Your task to perform on an android device: uninstall "Skype" Image 0: 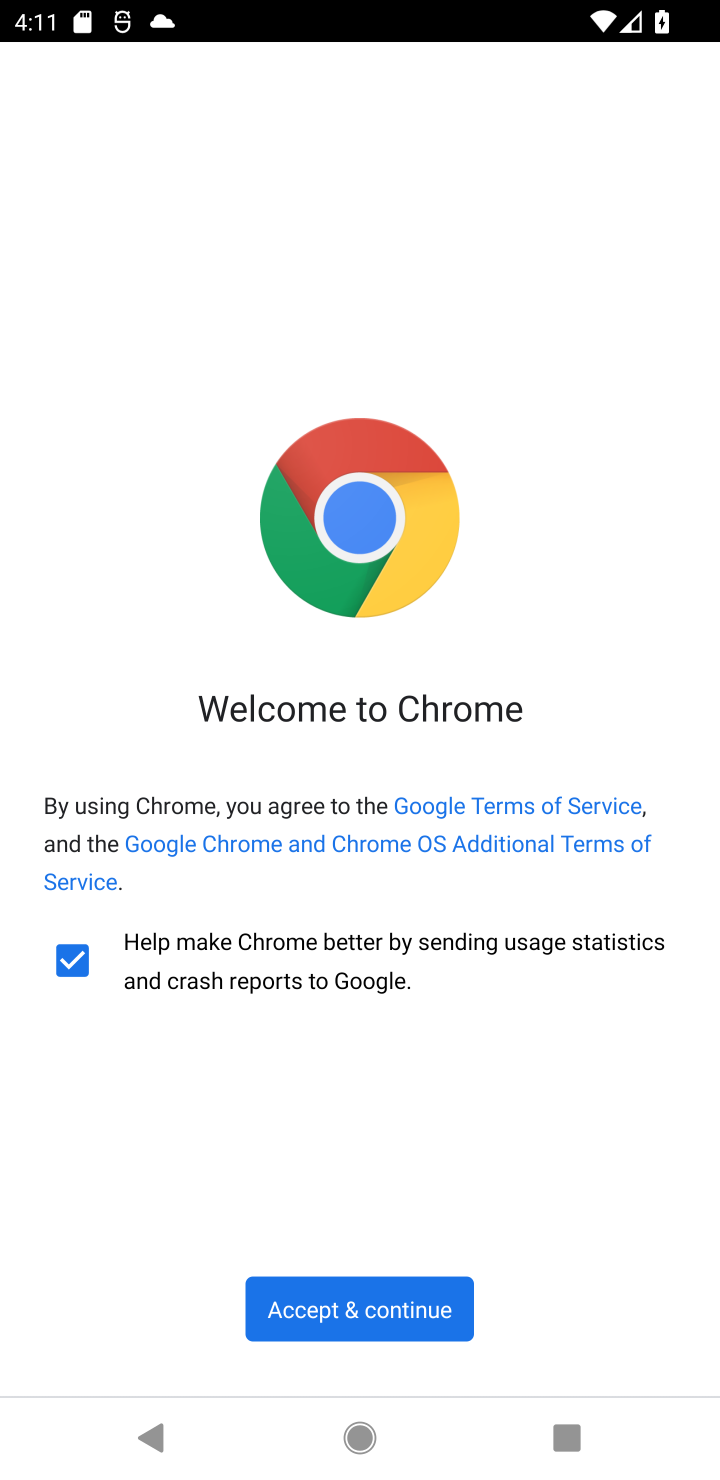
Step 0: press home button
Your task to perform on an android device: uninstall "Skype" Image 1: 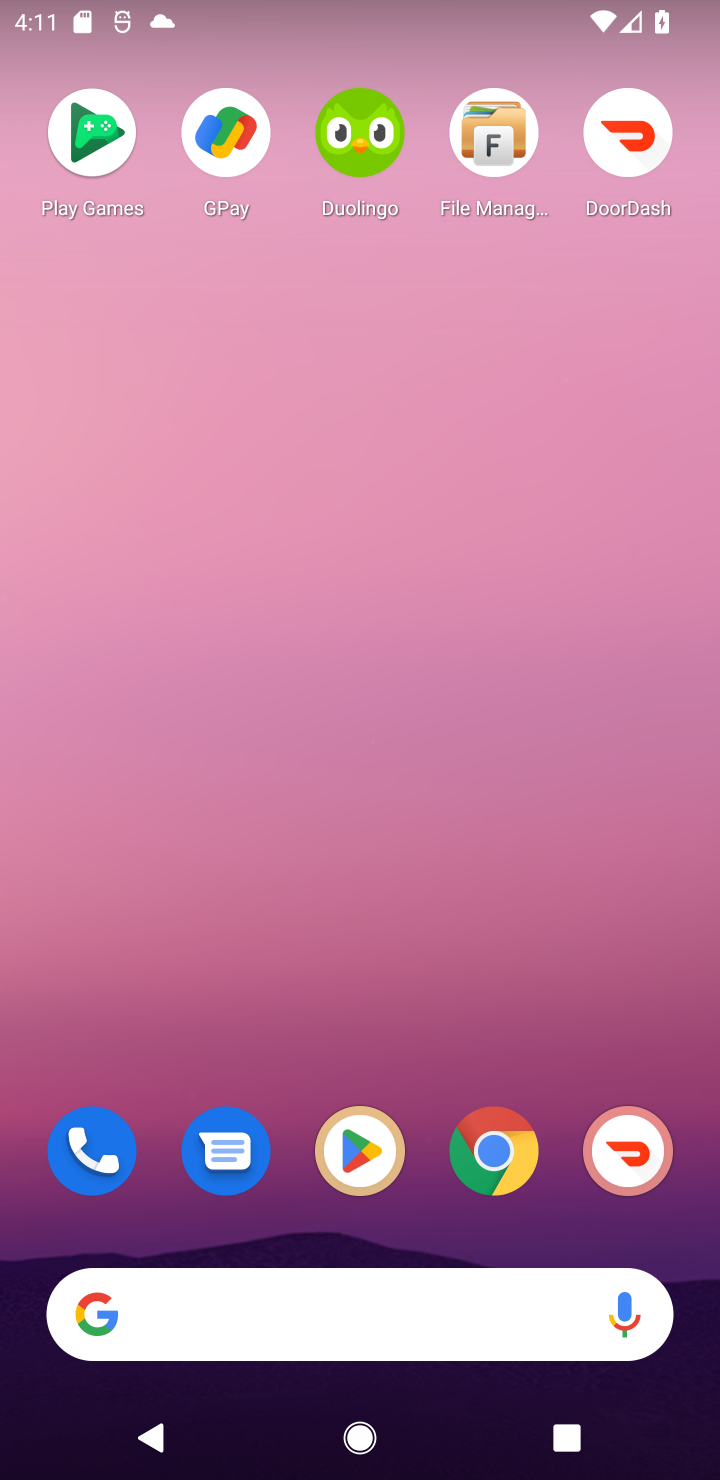
Step 1: click (352, 1196)
Your task to perform on an android device: uninstall "Skype" Image 2: 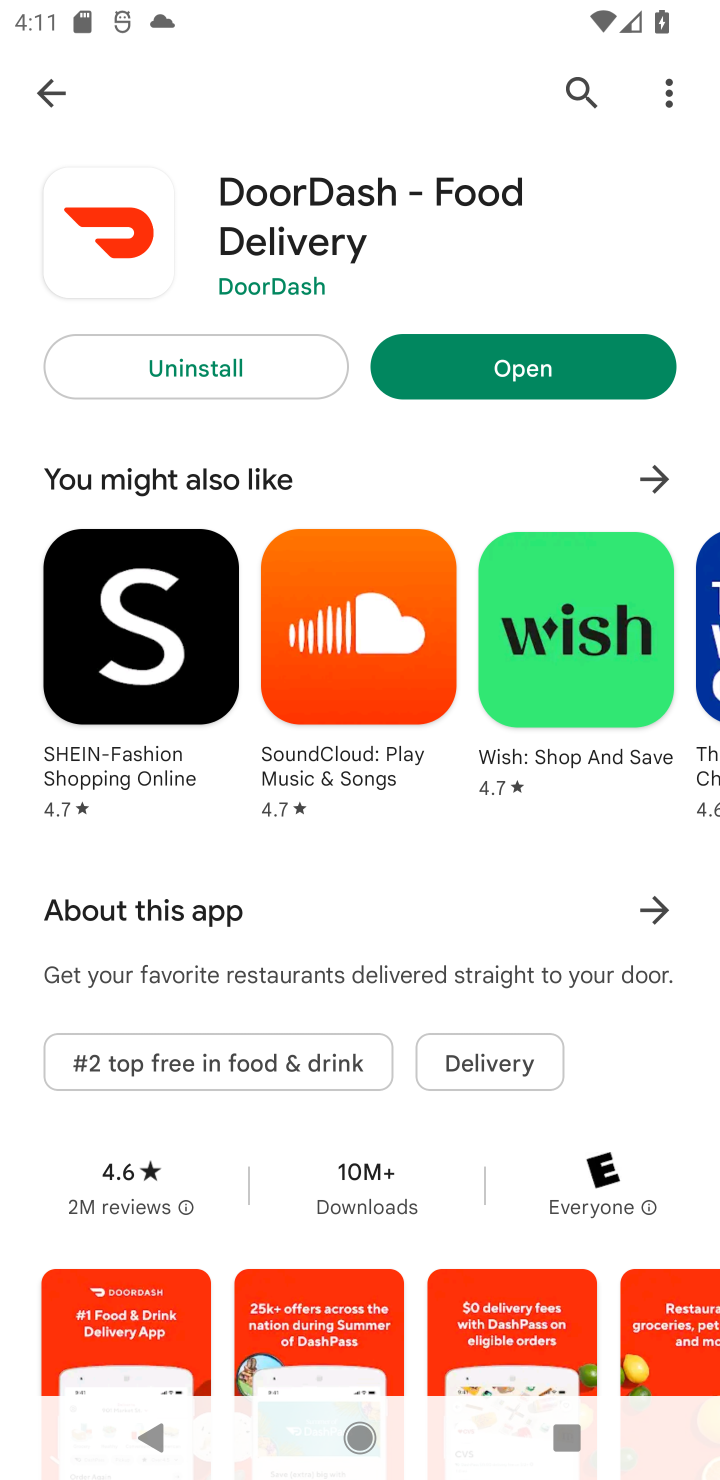
Step 2: click (68, 91)
Your task to perform on an android device: uninstall "Skype" Image 3: 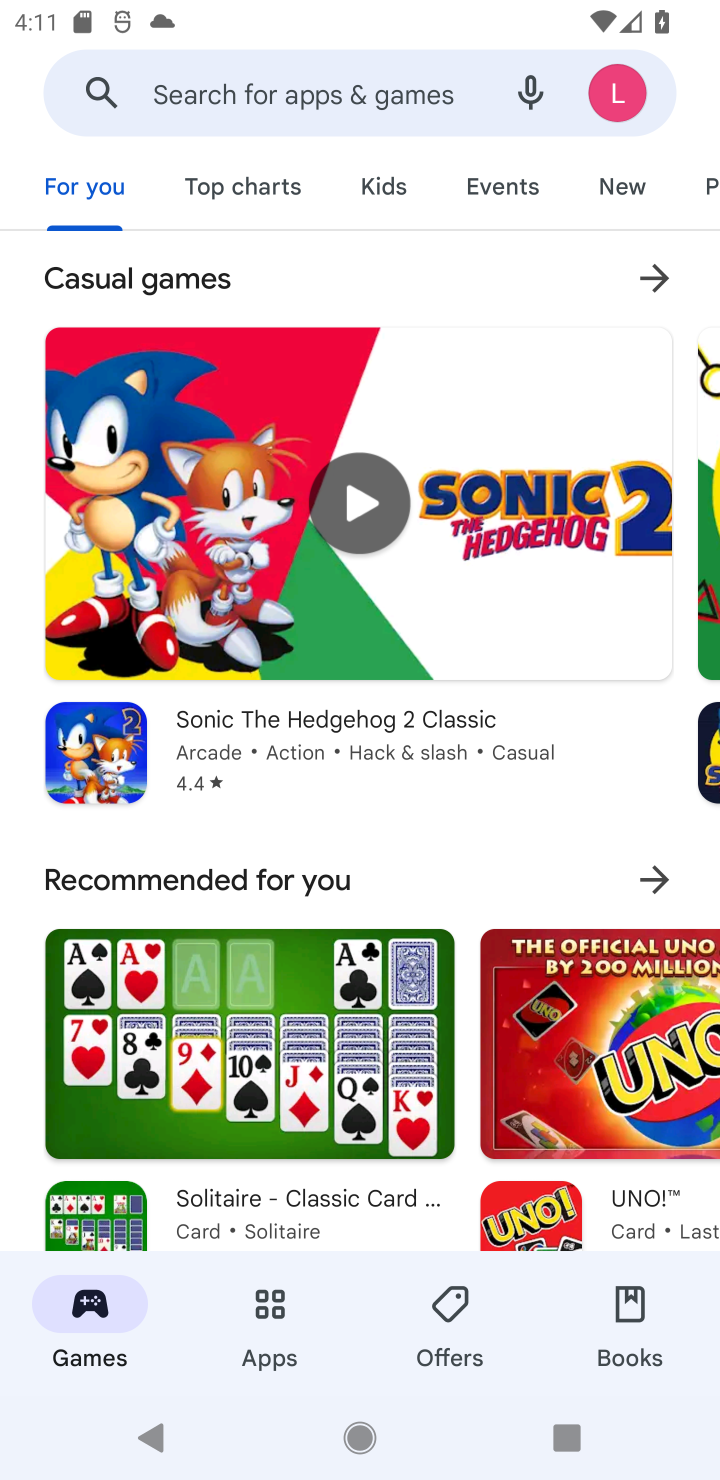
Step 3: click (447, 101)
Your task to perform on an android device: uninstall "Skype" Image 4: 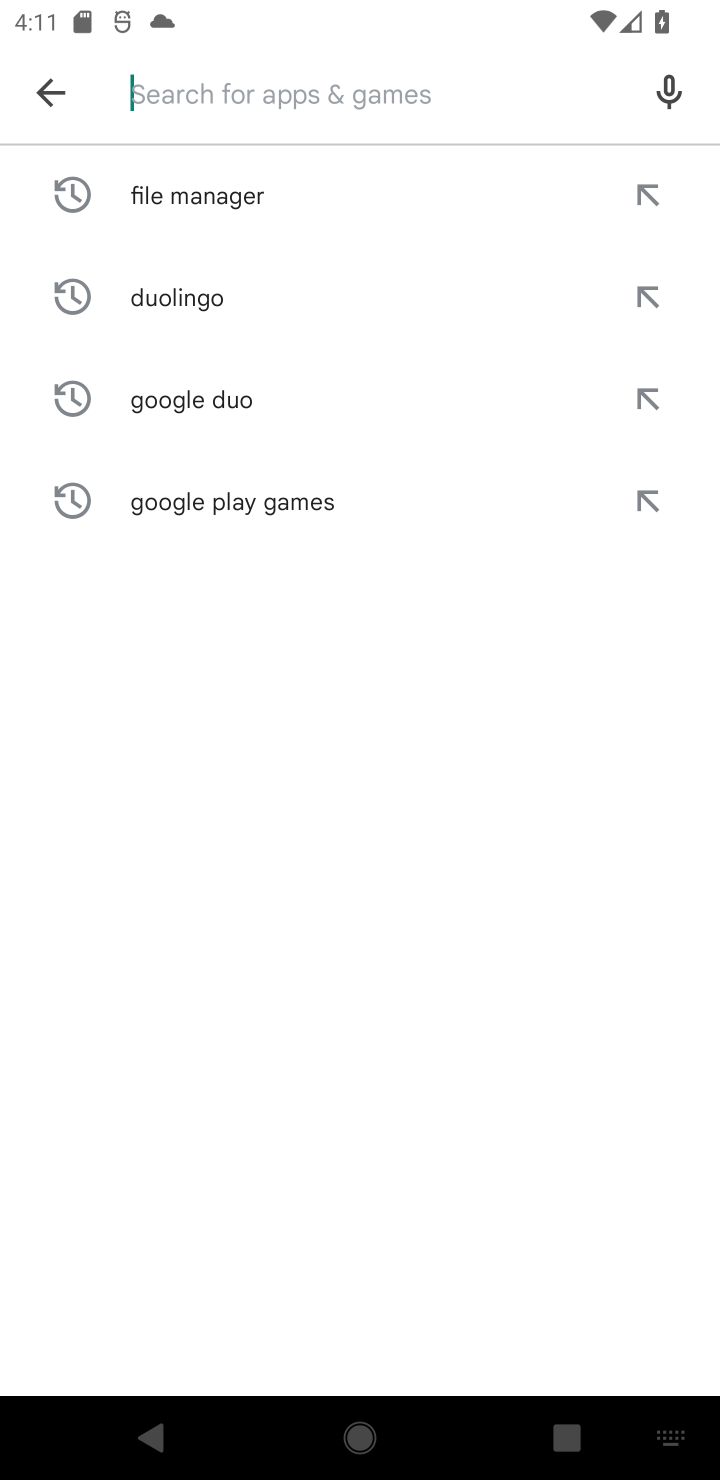
Step 4: type "Skype"
Your task to perform on an android device: uninstall "Skype" Image 5: 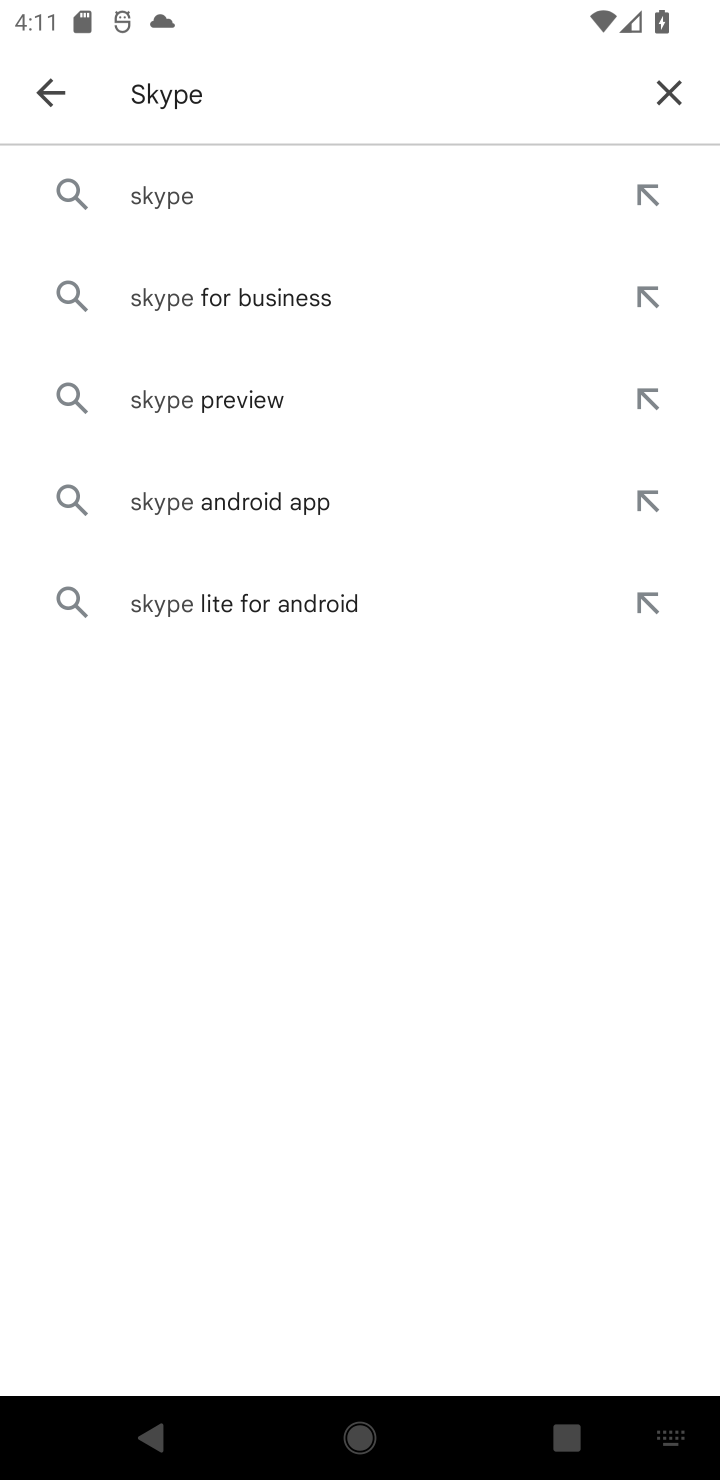
Step 5: click (252, 213)
Your task to perform on an android device: uninstall "Skype" Image 6: 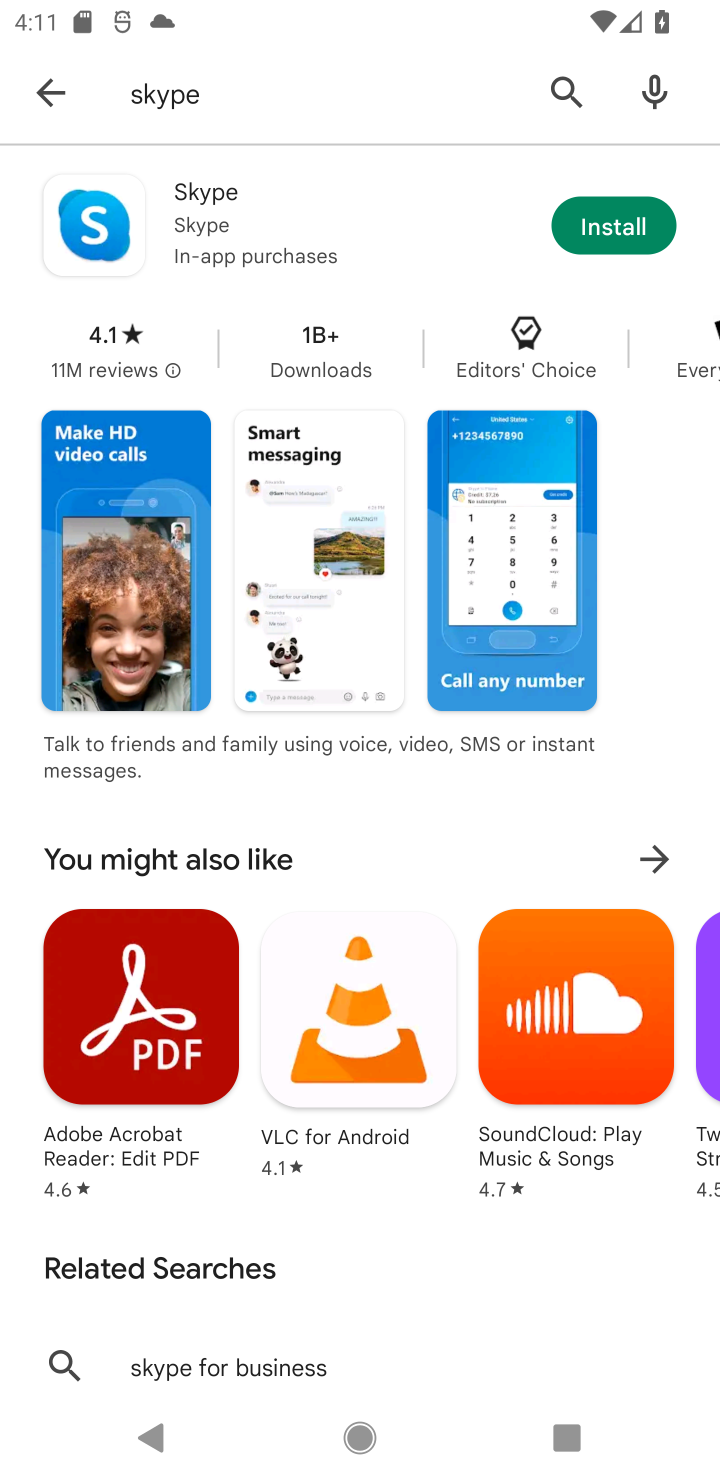
Step 6: task complete